Your task to perform on an android device: all mails in gmail Image 0: 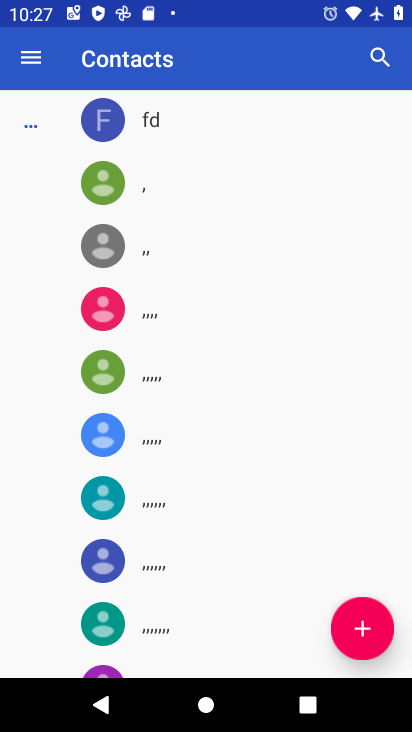
Step 0: press home button
Your task to perform on an android device: all mails in gmail Image 1: 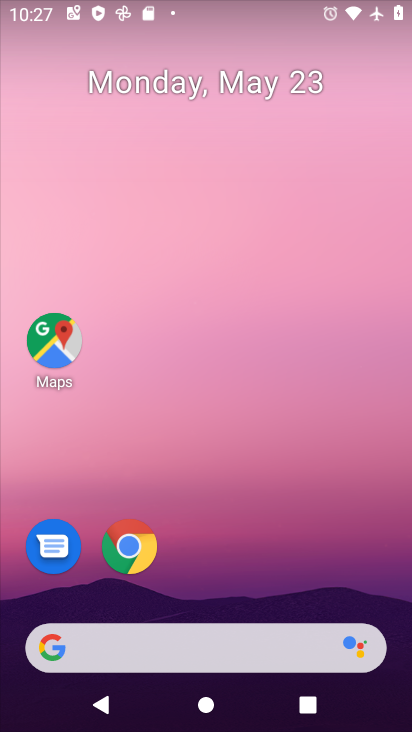
Step 1: drag from (336, 597) to (349, 34)
Your task to perform on an android device: all mails in gmail Image 2: 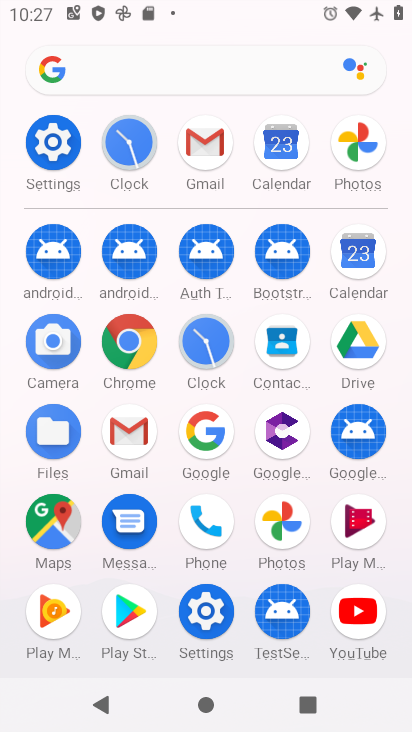
Step 2: click (129, 434)
Your task to perform on an android device: all mails in gmail Image 3: 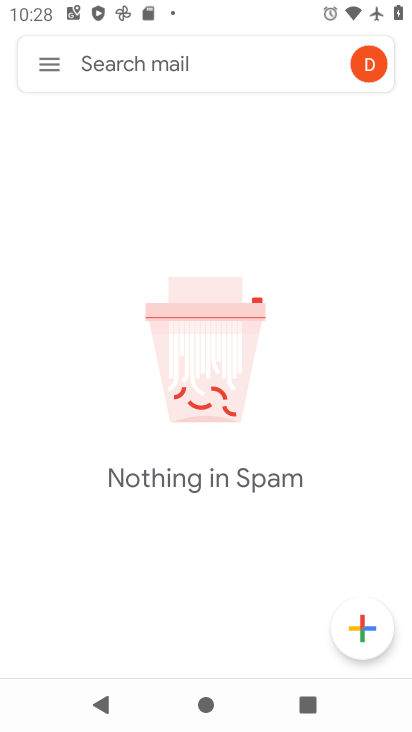
Step 3: click (58, 71)
Your task to perform on an android device: all mails in gmail Image 4: 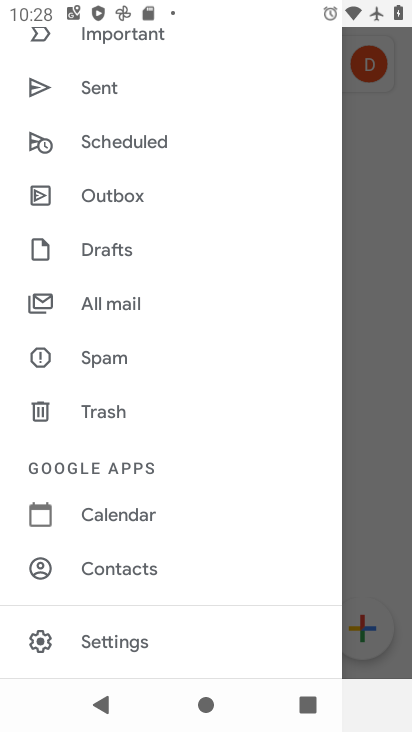
Step 4: click (95, 305)
Your task to perform on an android device: all mails in gmail Image 5: 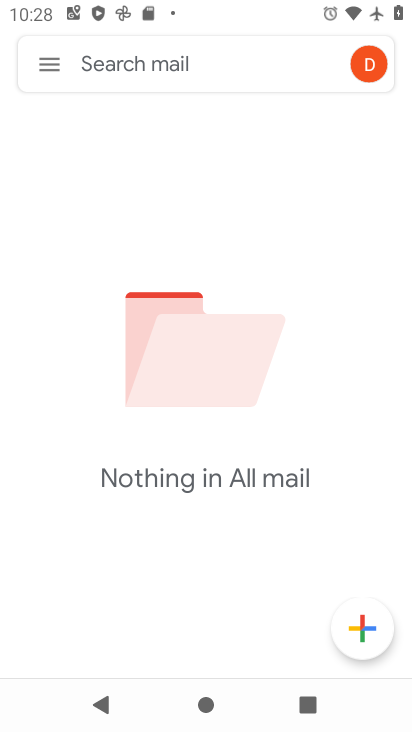
Step 5: task complete